Your task to perform on an android device: clear history in the chrome app Image 0: 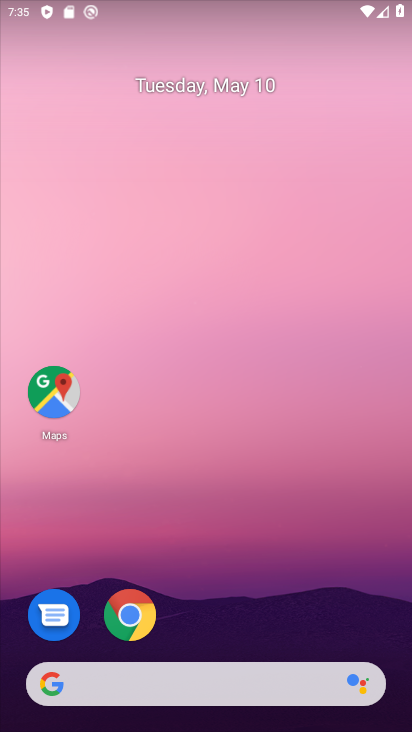
Step 0: drag from (218, 519) to (218, 228)
Your task to perform on an android device: clear history in the chrome app Image 1: 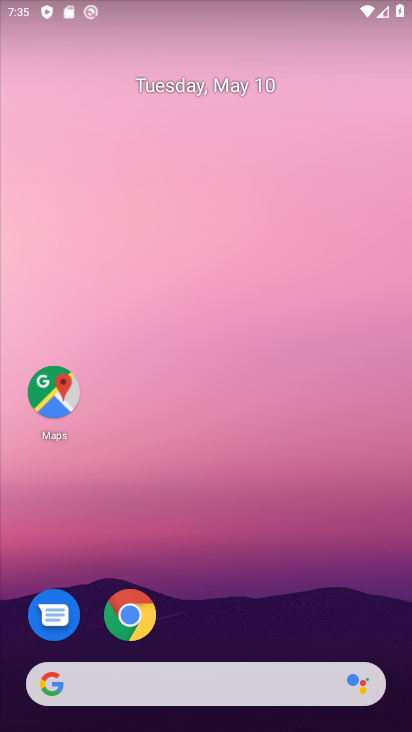
Step 1: drag from (208, 641) to (257, 3)
Your task to perform on an android device: clear history in the chrome app Image 2: 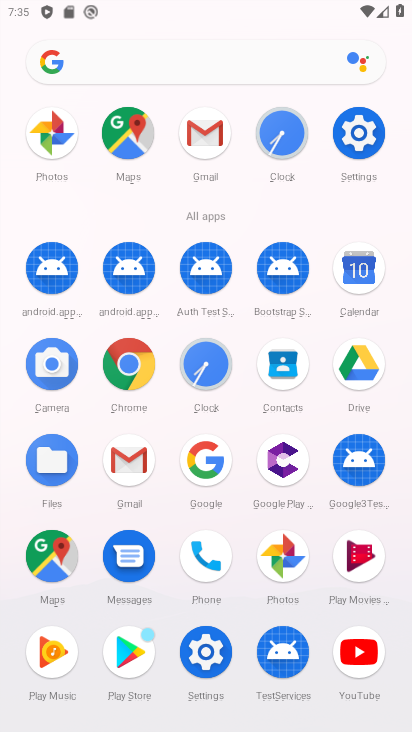
Step 2: click (139, 368)
Your task to perform on an android device: clear history in the chrome app Image 3: 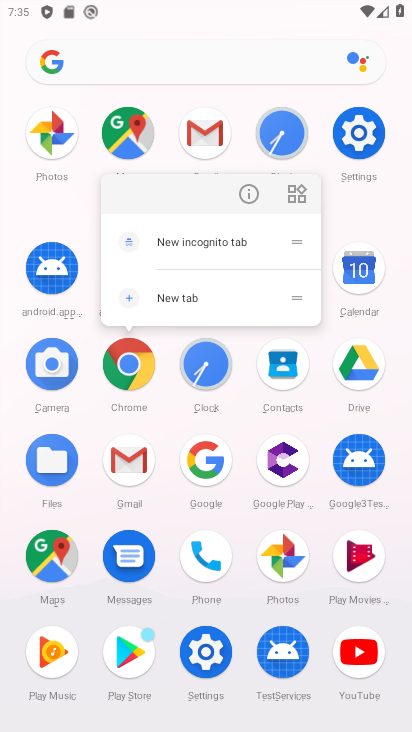
Step 3: click (256, 192)
Your task to perform on an android device: clear history in the chrome app Image 4: 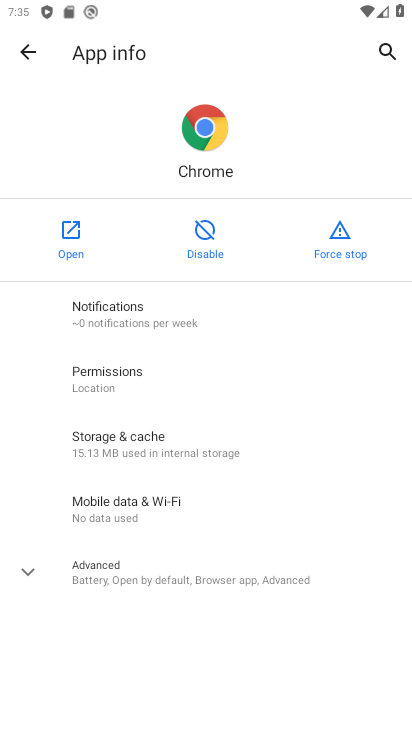
Step 4: click (83, 236)
Your task to perform on an android device: clear history in the chrome app Image 5: 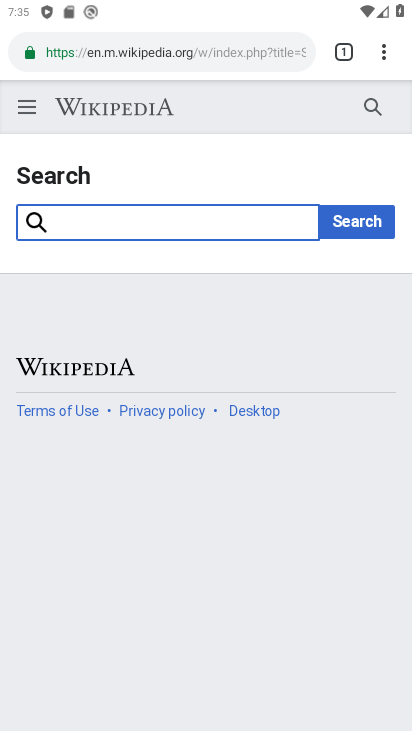
Step 5: drag from (380, 55) to (206, 297)
Your task to perform on an android device: clear history in the chrome app Image 6: 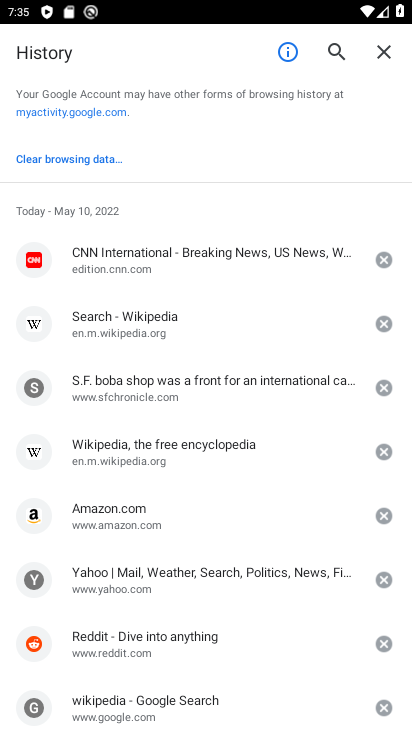
Step 6: click (88, 102)
Your task to perform on an android device: clear history in the chrome app Image 7: 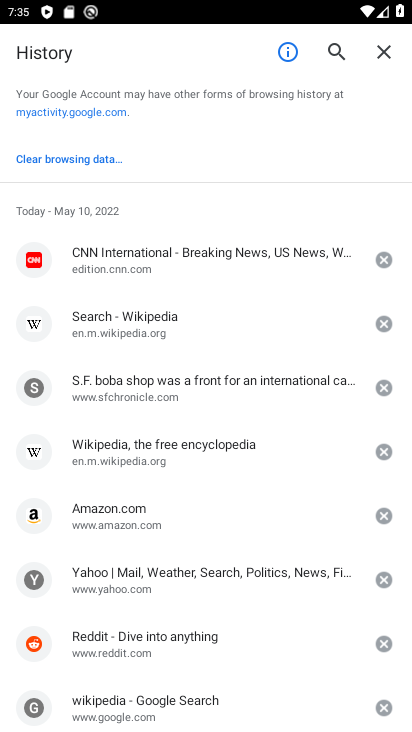
Step 7: click (72, 161)
Your task to perform on an android device: clear history in the chrome app Image 8: 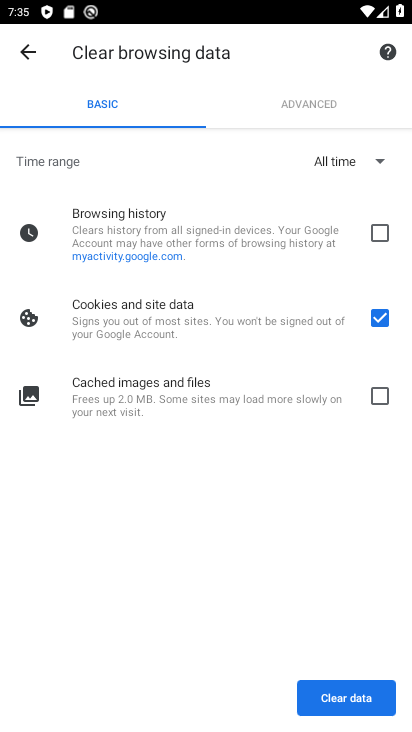
Step 8: click (368, 232)
Your task to perform on an android device: clear history in the chrome app Image 9: 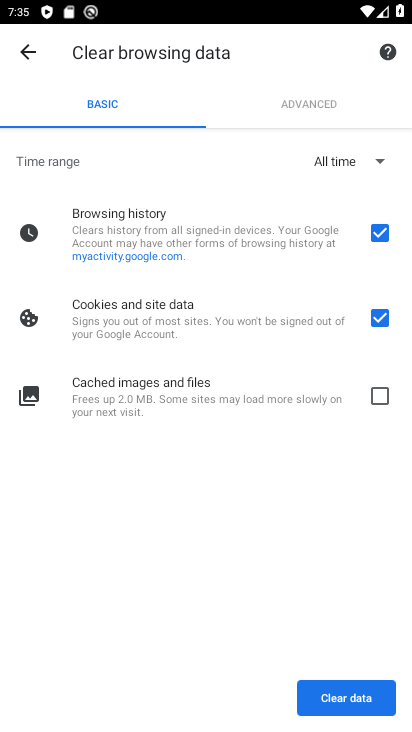
Step 9: click (353, 701)
Your task to perform on an android device: clear history in the chrome app Image 10: 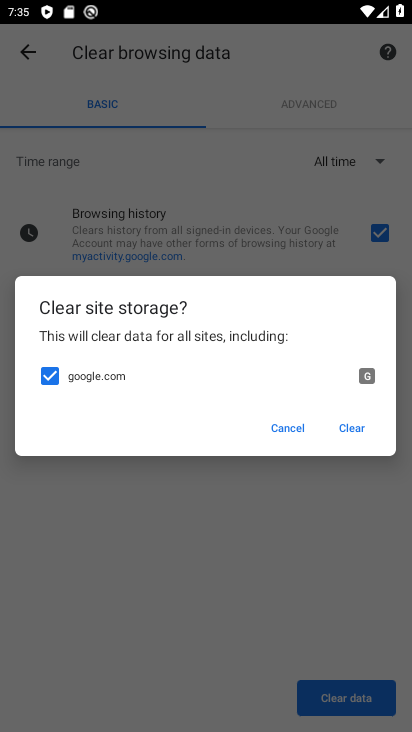
Step 10: click (335, 427)
Your task to perform on an android device: clear history in the chrome app Image 11: 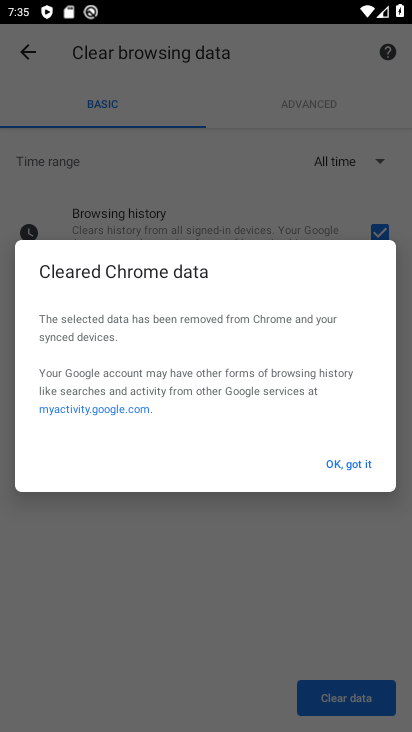
Step 11: task complete